Your task to perform on an android device: change the upload size in google photos Image 0: 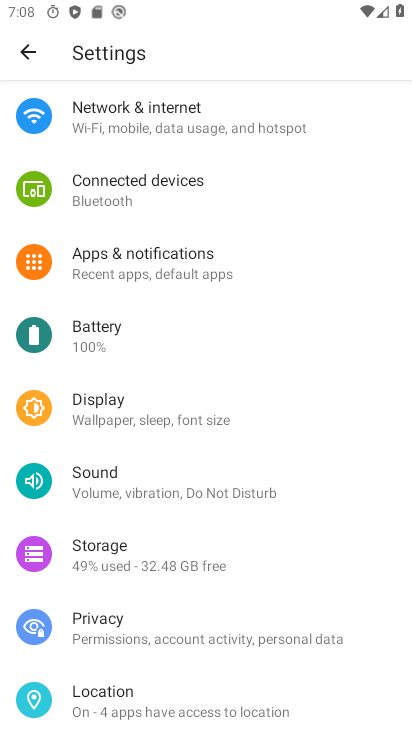
Step 0: press home button
Your task to perform on an android device: change the upload size in google photos Image 1: 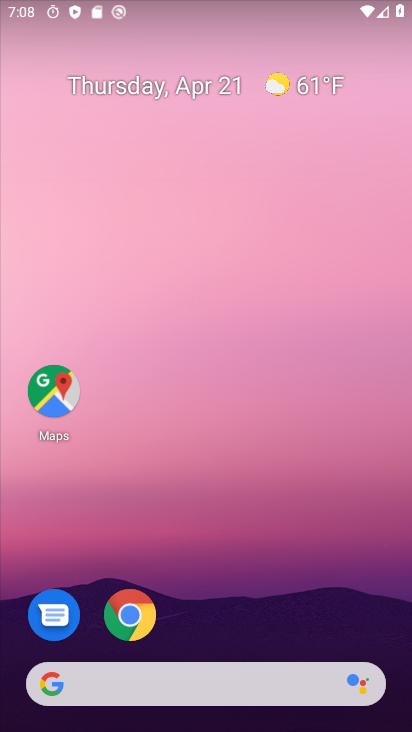
Step 1: drag from (208, 630) to (241, 42)
Your task to perform on an android device: change the upload size in google photos Image 2: 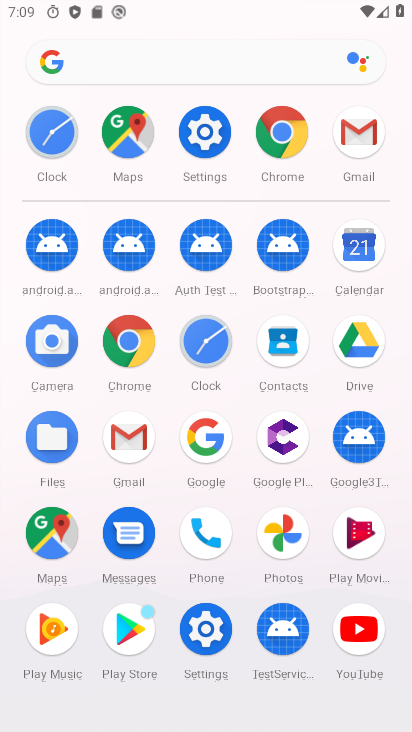
Step 2: click (273, 534)
Your task to perform on an android device: change the upload size in google photos Image 3: 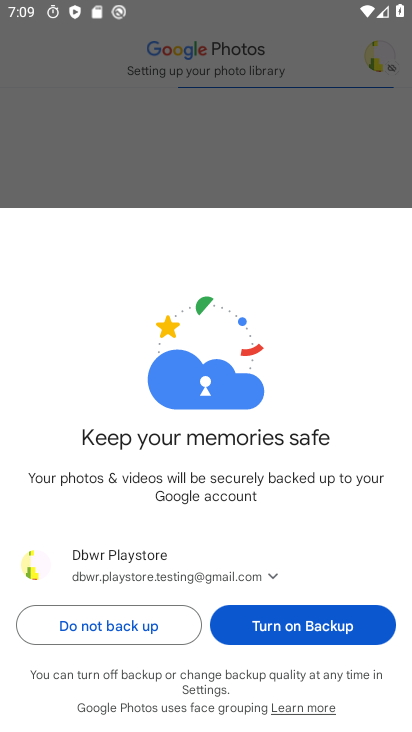
Step 3: click (293, 625)
Your task to perform on an android device: change the upload size in google photos Image 4: 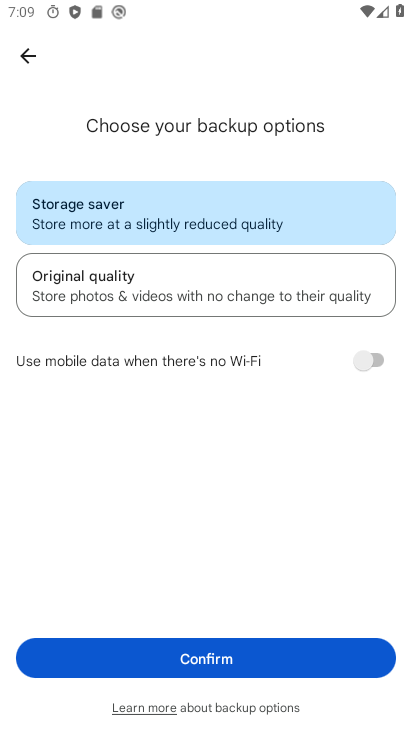
Step 4: click (140, 687)
Your task to perform on an android device: change the upload size in google photos Image 5: 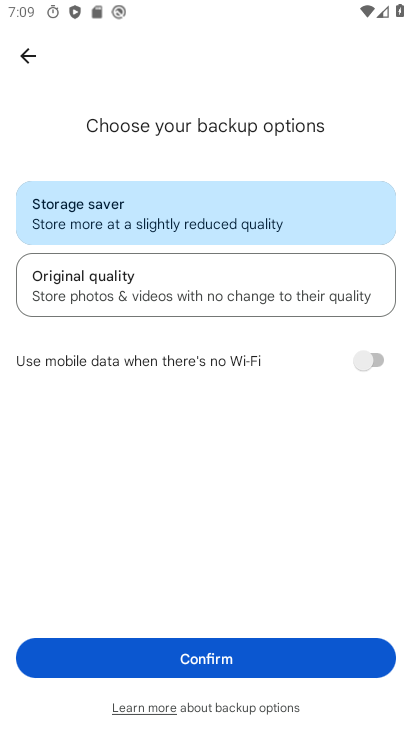
Step 5: click (181, 675)
Your task to perform on an android device: change the upload size in google photos Image 6: 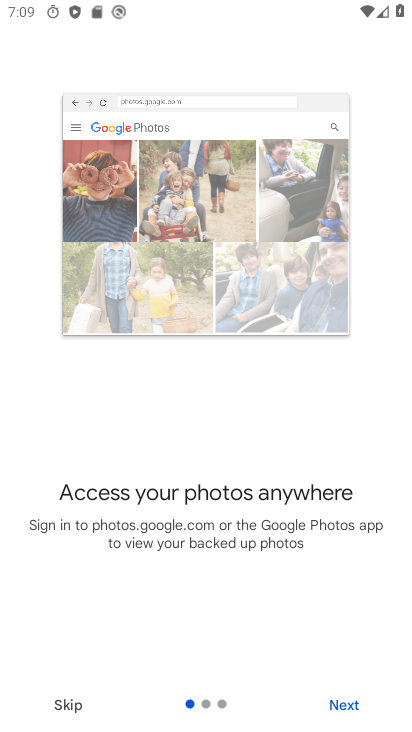
Step 6: click (71, 708)
Your task to perform on an android device: change the upload size in google photos Image 7: 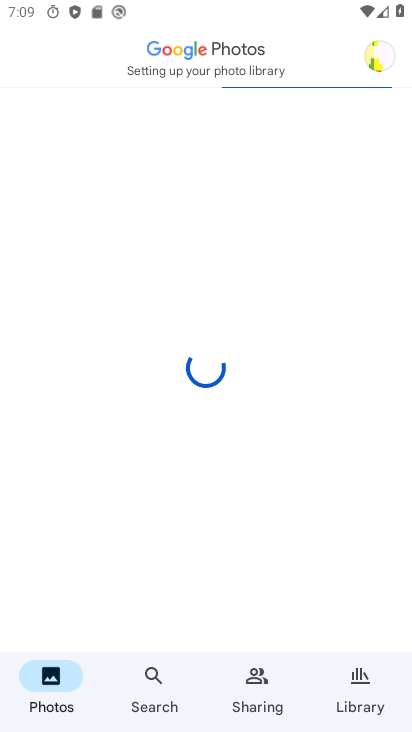
Step 7: click (382, 63)
Your task to perform on an android device: change the upload size in google photos Image 8: 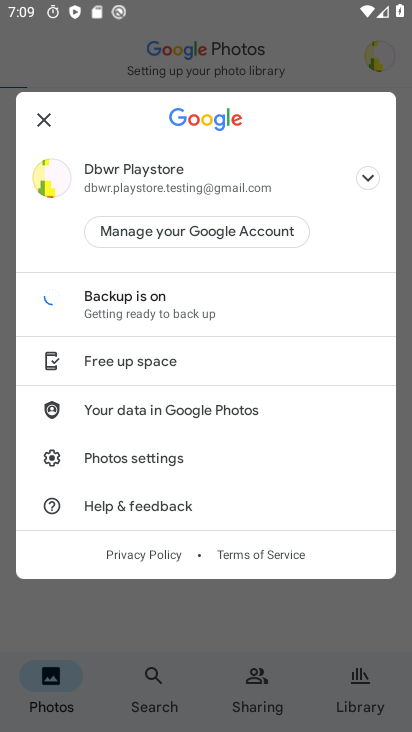
Step 8: click (160, 455)
Your task to perform on an android device: change the upload size in google photos Image 9: 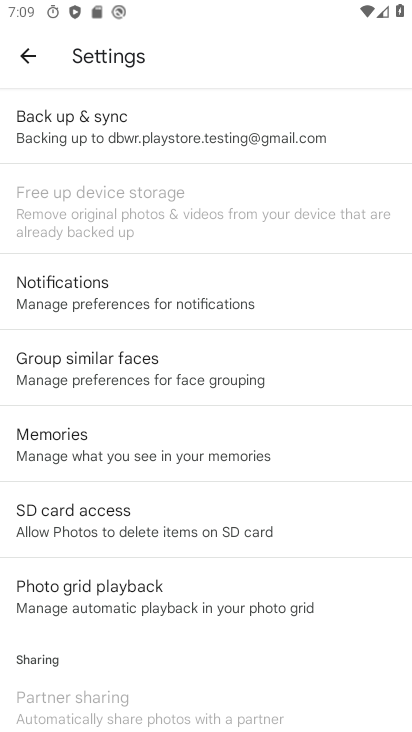
Step 9: drag from (166, 607) to (234, 333)
Your task to perform on an android device: change the upload size in google photos Image 10: 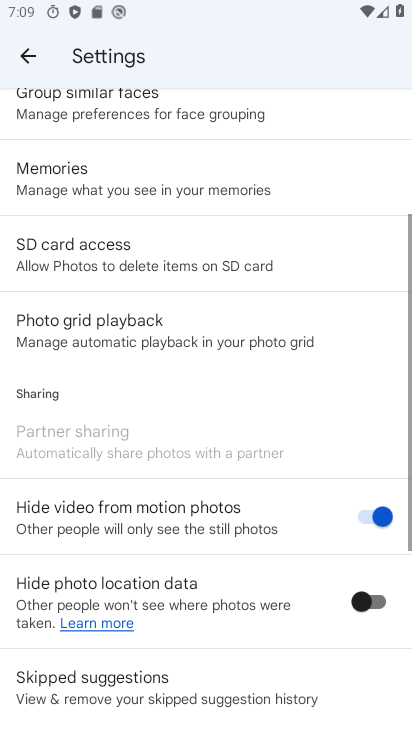
Step 10: drag from (234, 329) to (409, 708)
Your task to perform on an android device: change the upload size in google photos Image 11: 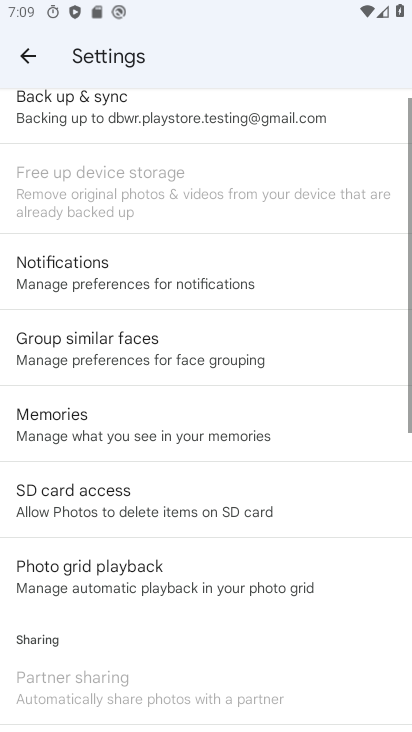
Step 11: click (121, 124)
Your task to perform on an android device: change the upload size in google photos Image 12: 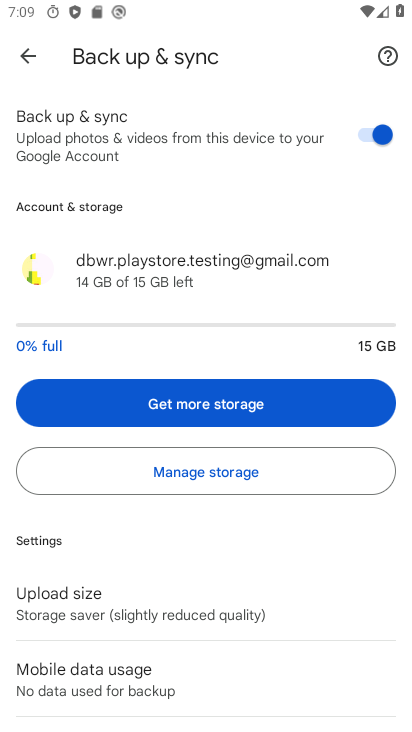
Step 12: drag from (248, 597) to (295, 365)
Your task to perform on an android device: change the upload size in google photos Image 13: 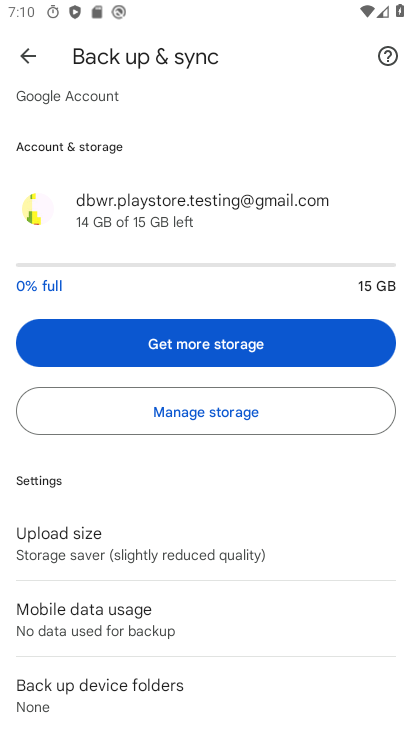
Step 13: click (118, 548)
Your task to perform on an android device: change the upload size in google photos Image 14: 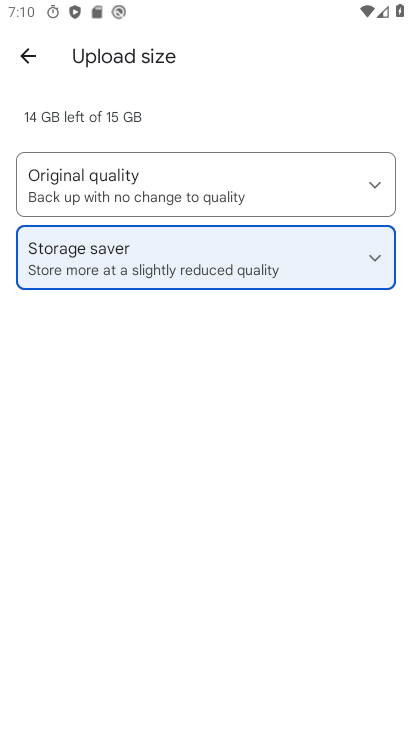
Step 14: drag from (222, 615) to (214, 409)
Your task to perform on an android device: change the upload size in google photos Image 15: 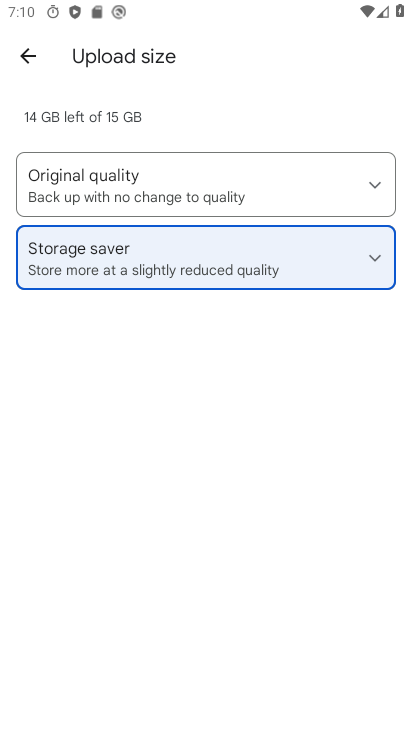
Step 15: drag from (280, 545) to (323, 268)
Your task to perform on an android device: change the upload size in google photos Image 16: 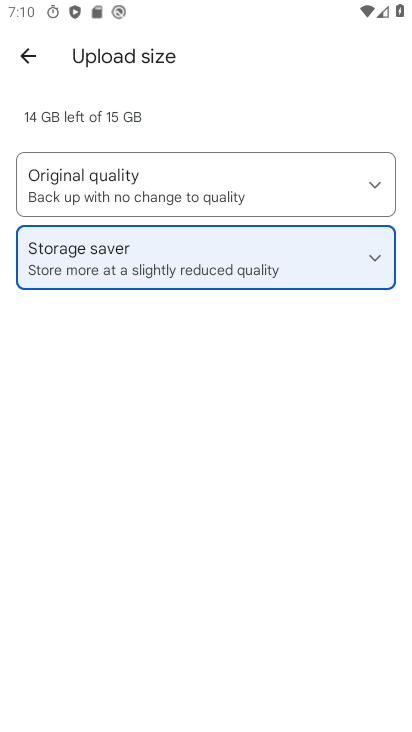
Step 16: click (131, 205)
Your task to perform on an android device: change the upload size in google photos Image 17: 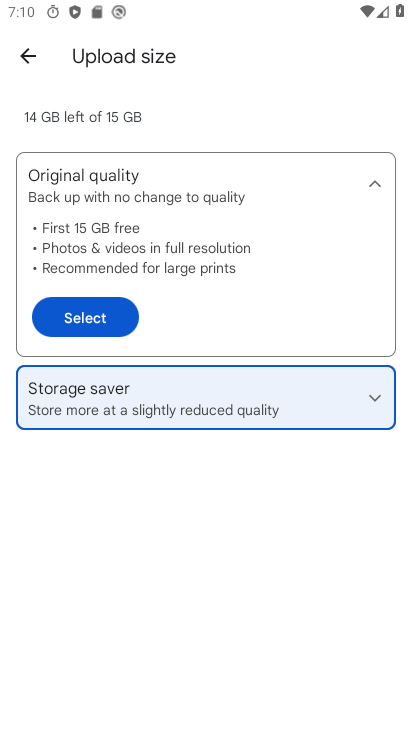
Step 17: task complete